Your task to perform on an android device: When is my next meeting? Image 0: 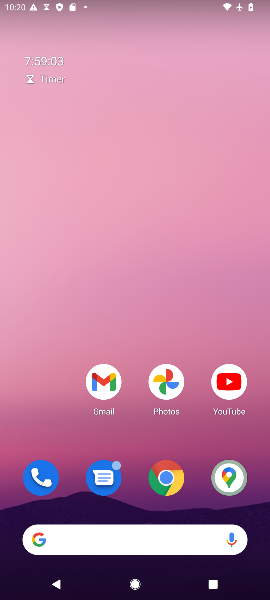
Step 0: drag from (191, 438) to (169, 120)
Your task to perform on an android device: When is my next meeting? Image 1: 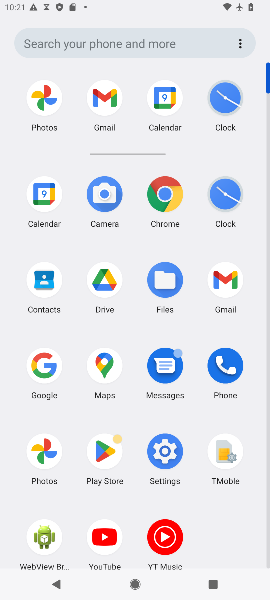
Step 1: click (48, 191)
Your task to perform on an android device: When is my next meeting? Image 2: 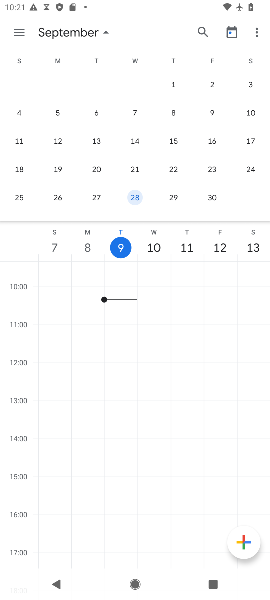
Step 2: click (228, 157)
Your task to perform on an android device: When is my next meeting? Image 3: 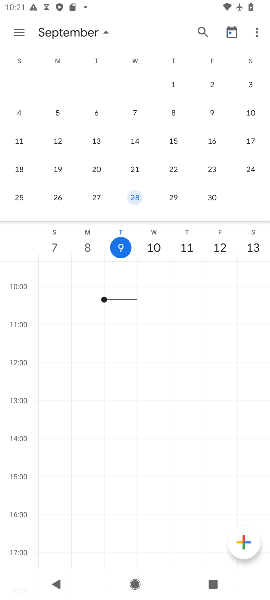
Step 3: click (22, 29)
Your task to perform on an android device: When is my next meeting? Image 4: 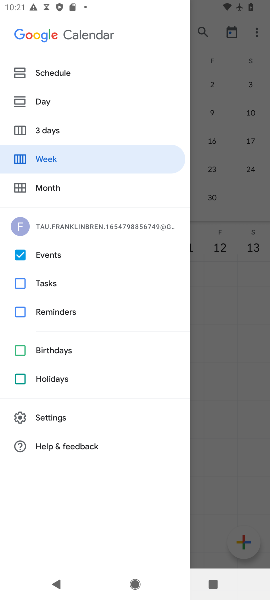
Step 4: click (68, 64)
Your task to perform on an android device: When is my next meeting? Image 5: 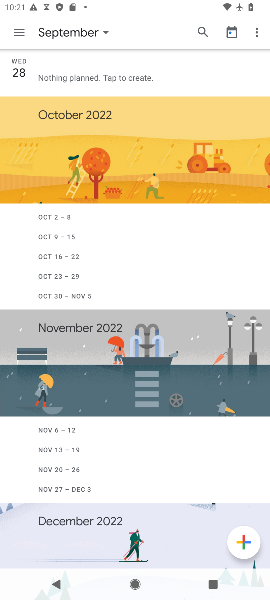
Step 5: click (81, 35)
Your task to perform on an android device: When is my next meeting? Image 6: 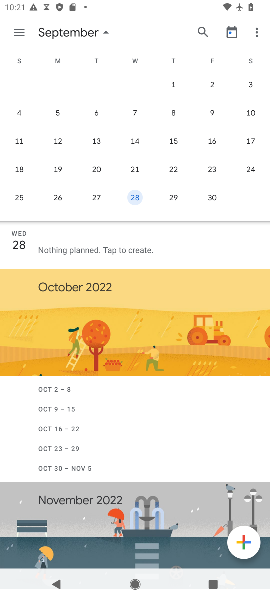
Step 6: drag from (61, 150) to (252, 171)
Your task to perform on an android device: When is my next meeting? Image 7: 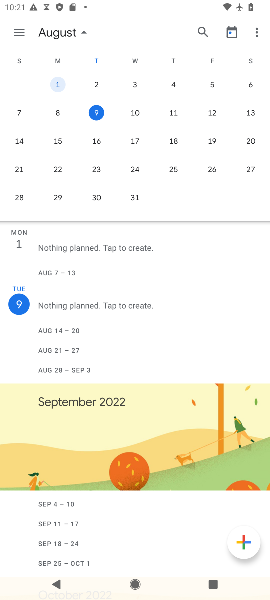
Step 7: click (95, 107)
Your task to perform on an android device: When is my next meeting? Image 8: 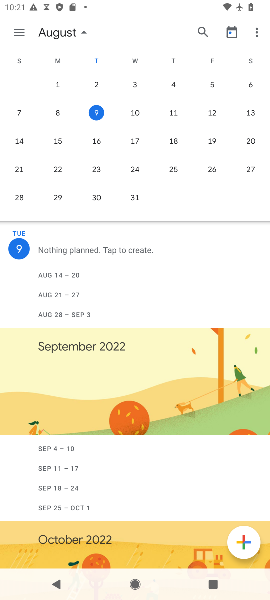
Step 8: click (77, 29)
Your task to perform on an android device: When is my next meeting? Image 9: 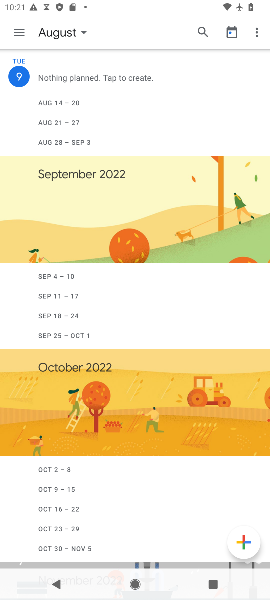
Step 9: task complete